Your task to perform on an android device: Go to CNN.com Image 0: 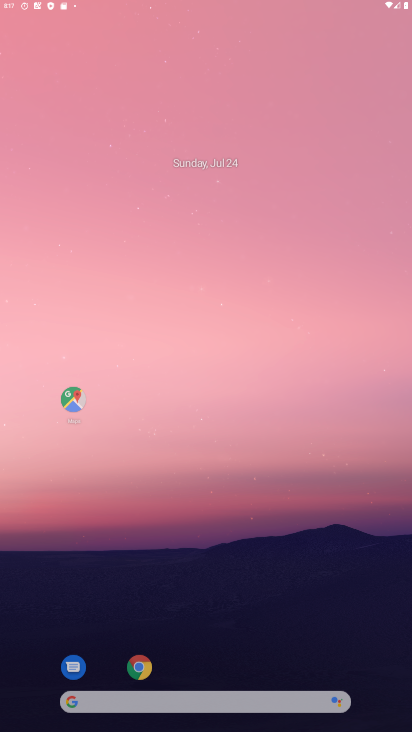
Step 0: click (140, 51)
Your task to perform on an android device: Go to CNN.com Image 1: 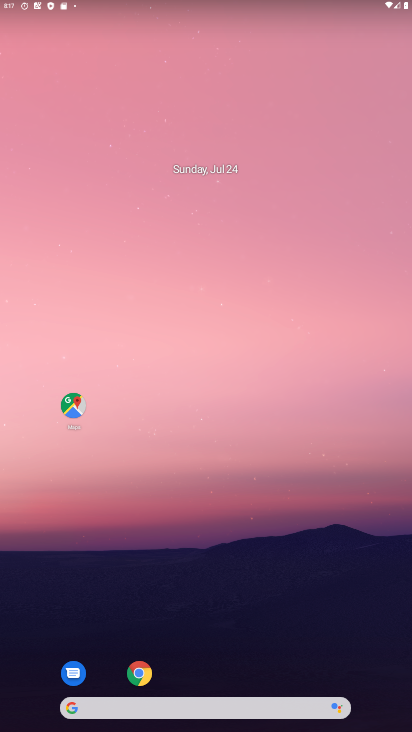
Step 1: drag from (191, 664) to (167, 324)
Your task to perform on an android device: Go to CNN.com Image 2: 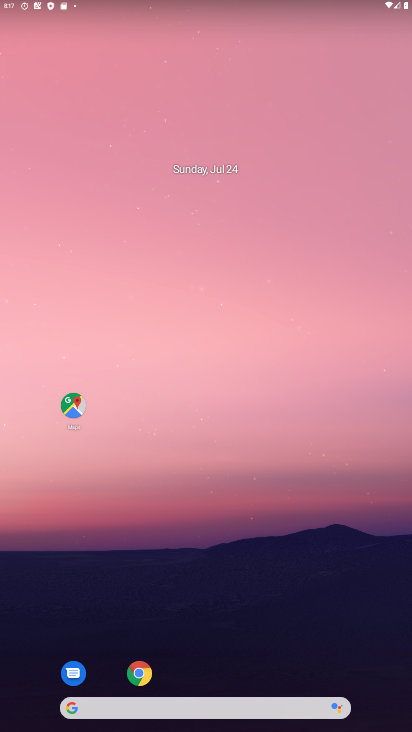
Step 2: drag from (193, 685) to (245, 63)
Your task to perform on an android device: Go to CNN.com Image 3: 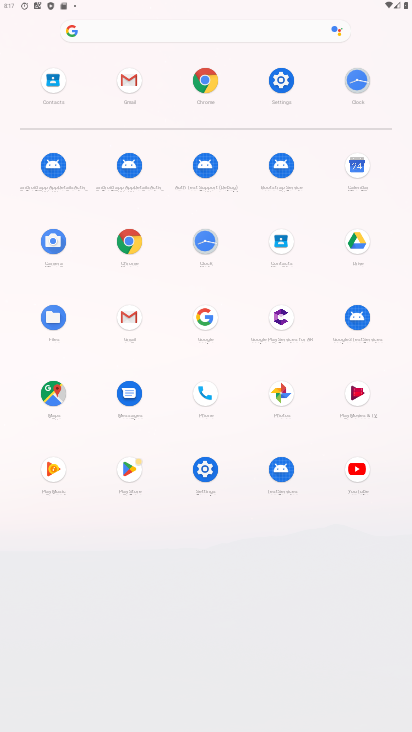
Step 3: click (145, 30)
Your task to perform on an android device: Go to CNN.com Image 4: 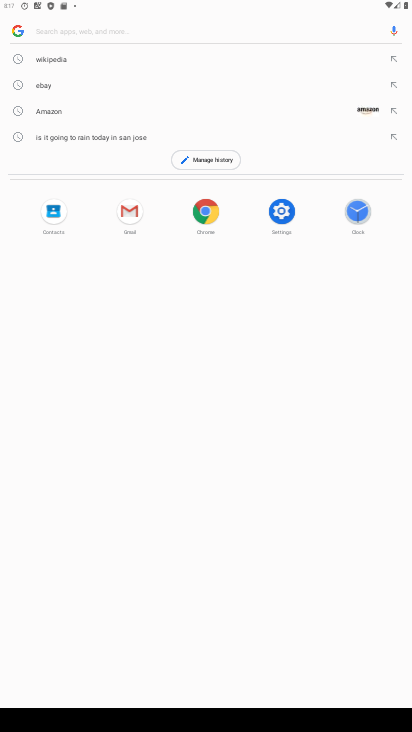
Step 4: type "CNN.com"
Your task to perform on an android device: Go to CNN.com Image 5: 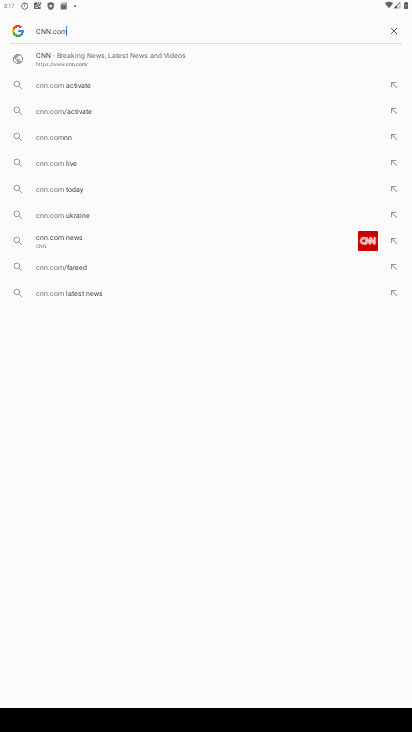
Step 5: click (56, 69)
Your task to perform on an android device: Go to CNN.com Image 6: 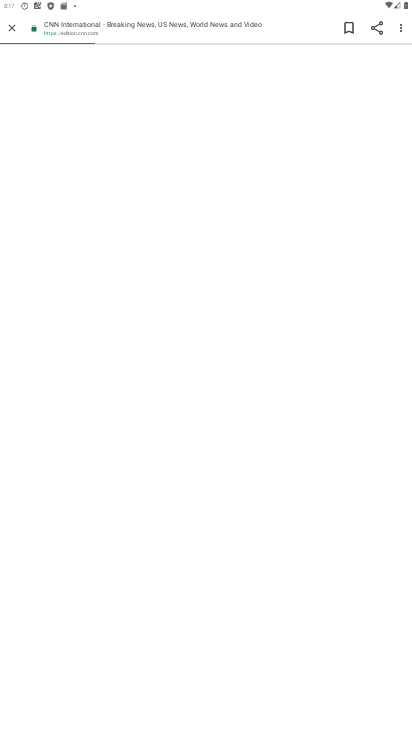
Step 6: task complete